Your task to perform on an android device: delete the emails in spam in the gmail app Image 0: 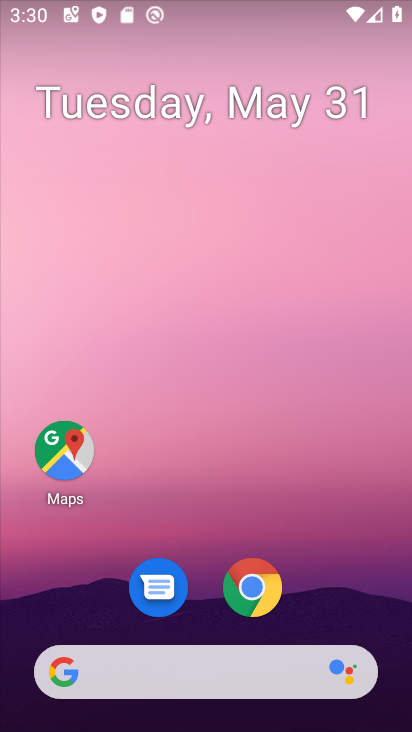
Step 0: drag from (314, 611) to (223, 51)
Your task to perform on an android device: delete the emails in spam in the gmail app Image 1: 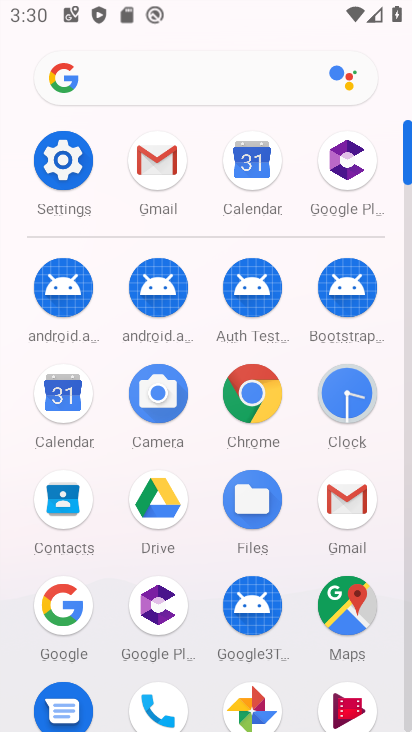
Step 1: click (160, 159)
Your task to perform on an android device: delete the emails in spam in the gmail app Image 2: 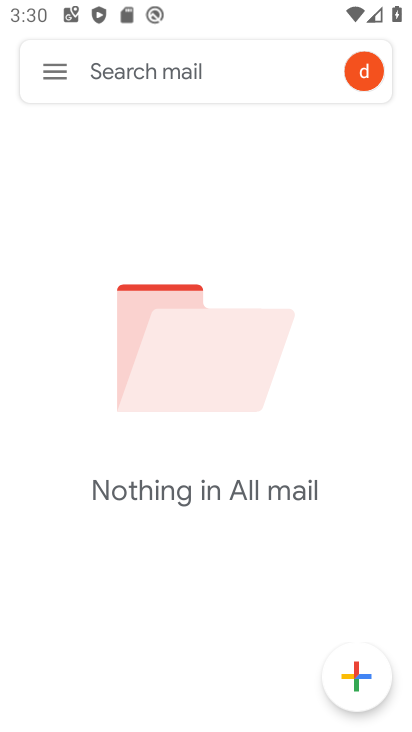
Step 2: click (66, 63)
Your task to perform on an android device: delete the emails in spam in the gmail app Image 3: 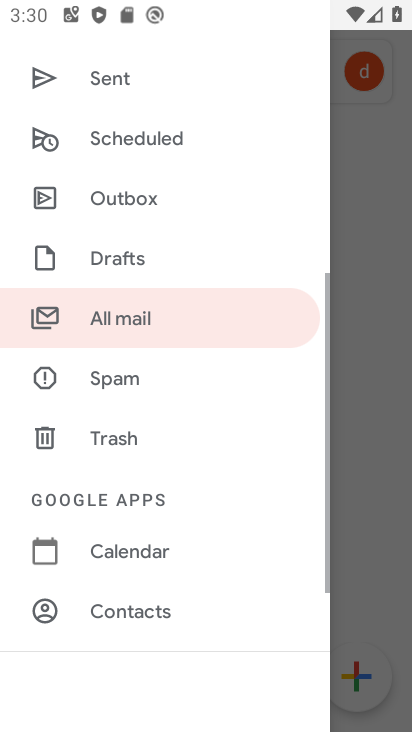
Step 3: click (158, 374)
Your task to perform on an android device: delete the emails in spam in the gmail app Image 4: 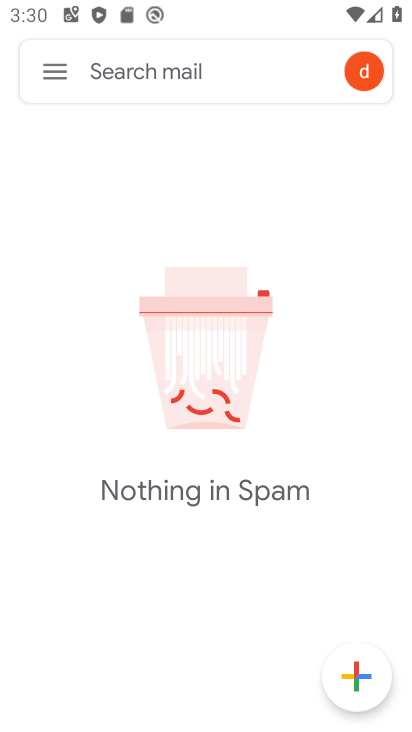
Step 4: task complete